Your task to perform on an android device: Go to display settings Image 0: 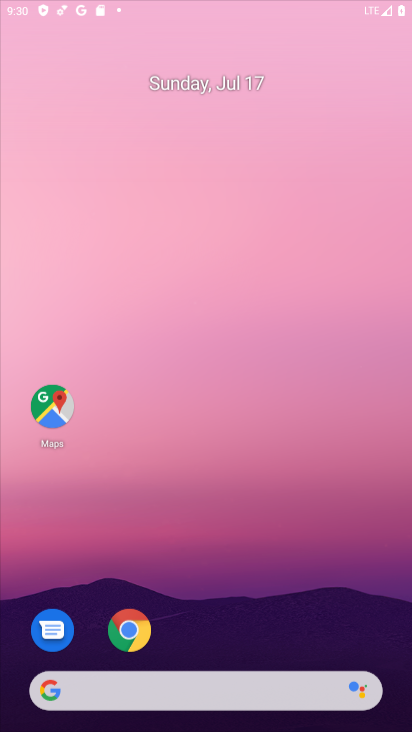
Step 0: press home button
Your task to perform on an android device: Go to display settings Image 1: 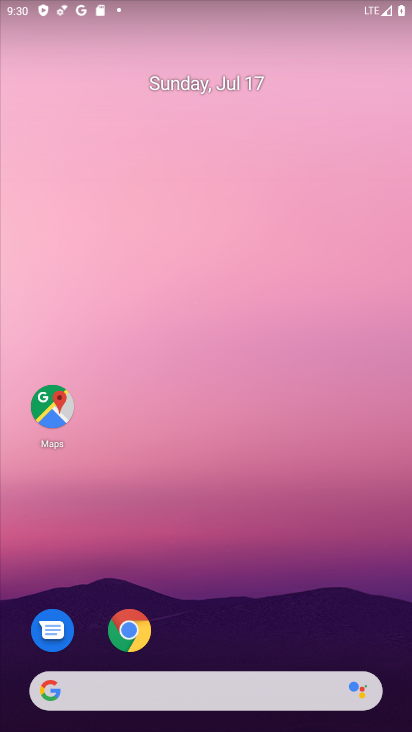
Step 1: drag from (206, 651) to (185, 58)
Your task to perform on an android device: Go to display settings Image 2: 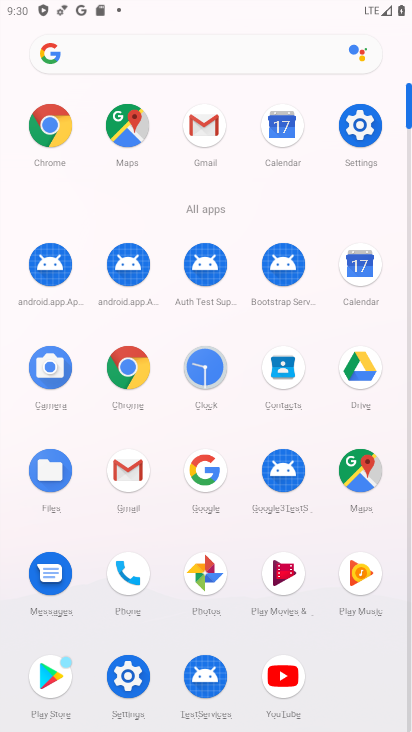
Step 2: click (357, 124)
Your task to perform on an android device: Go to display settings Image 3: 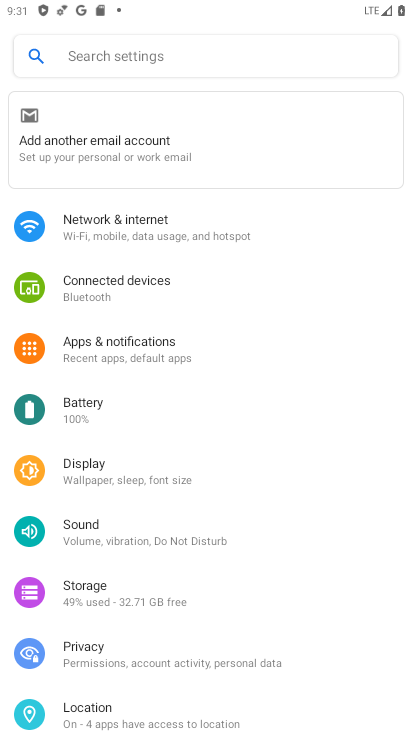
Step 3: click (119, 463)
Your task to perform on an android device: Go to display settings Image 4: 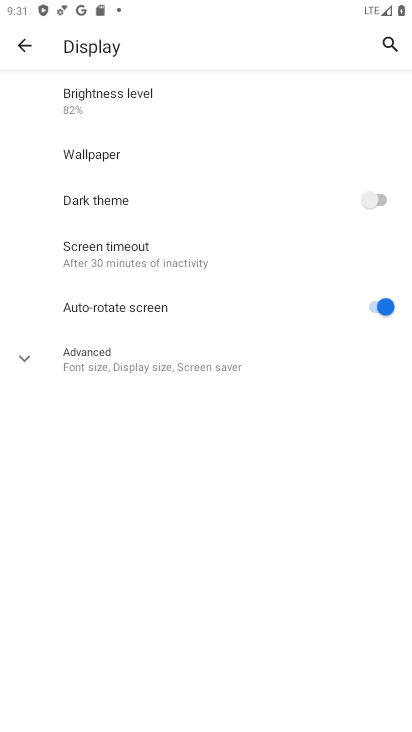
Step 4: click (28, 354)
Your task to perform on an android device: Go to display settings Image 5: 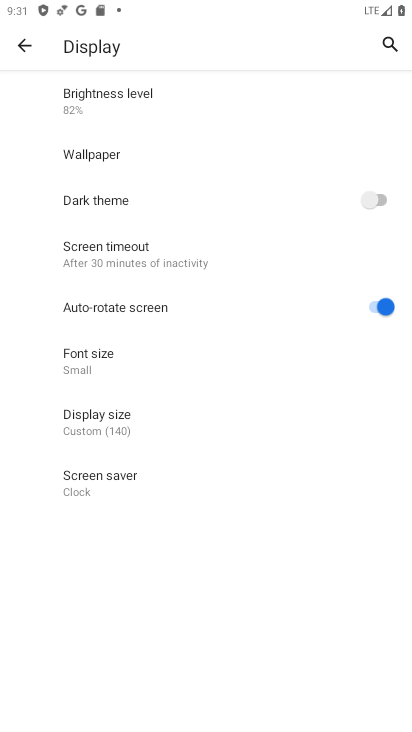
Step 5: task complete